Your task to perform on an android device: check out phone information Image 0: 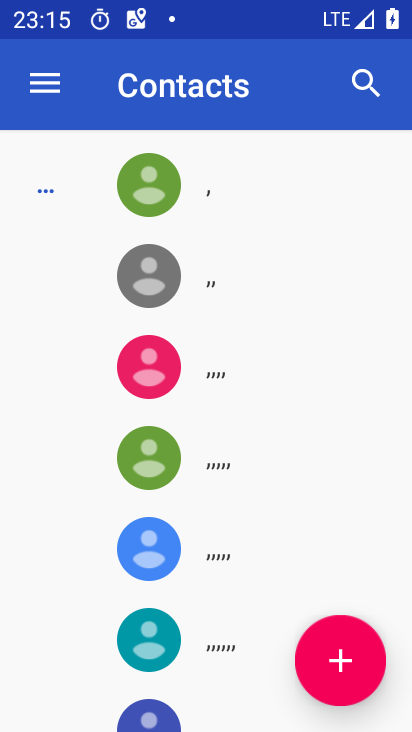
Step 0: press home button
Your task to perform on an android device: check out phone information Image 1: 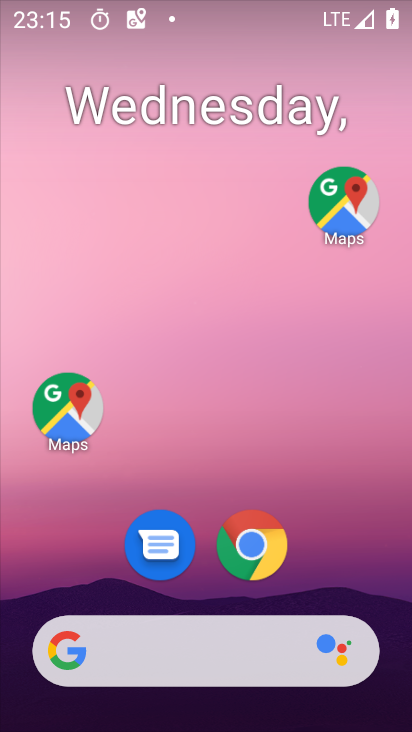
Step 1: drag from (325, 549) to (225, 50)
Your task to perform on an android device: check out phone information Image 2: 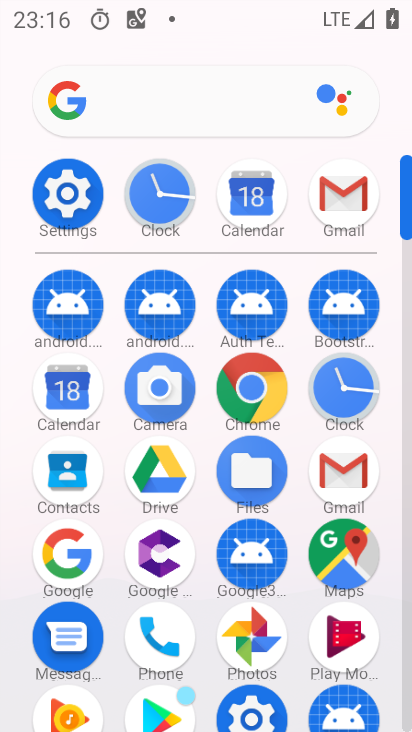
Step 2: click (67, 189)
Your task to perform on an android device: check out phone information Image 3: 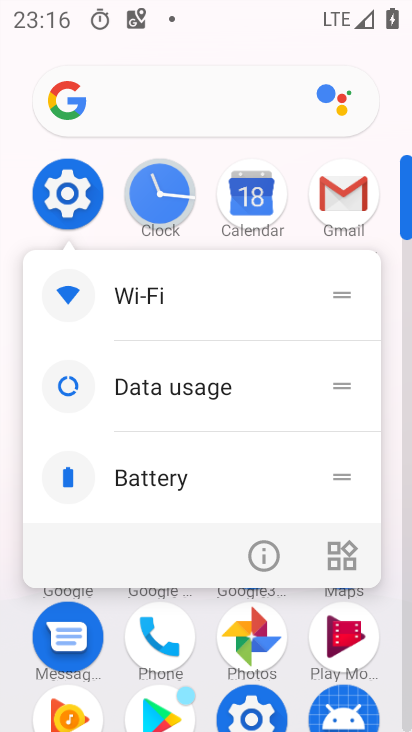
Step 3: click (72, 179)
Your task to perform on an android device: check out phone information Image 4: 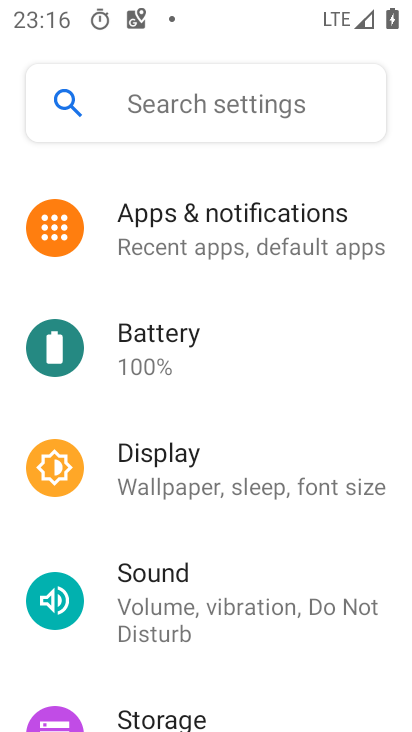
Step 4: drag from (158, 612) to (157, 311)
Your task to perform on an android device: check out phone information Image 5: 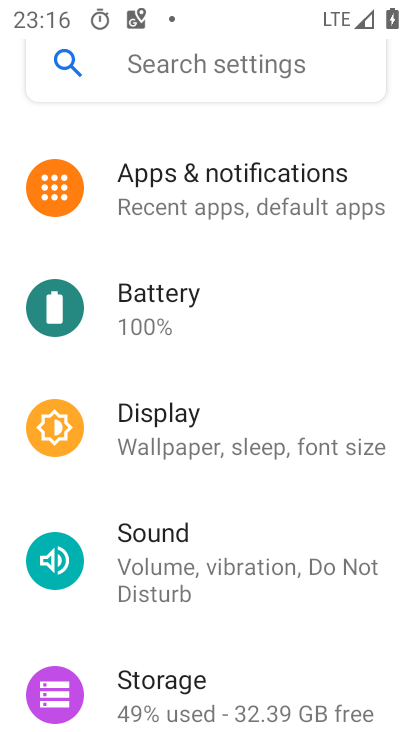
Step 5: drag from (176, 558) to (211, 341)
Your task to perform on an android device: check out phone information Image 6: 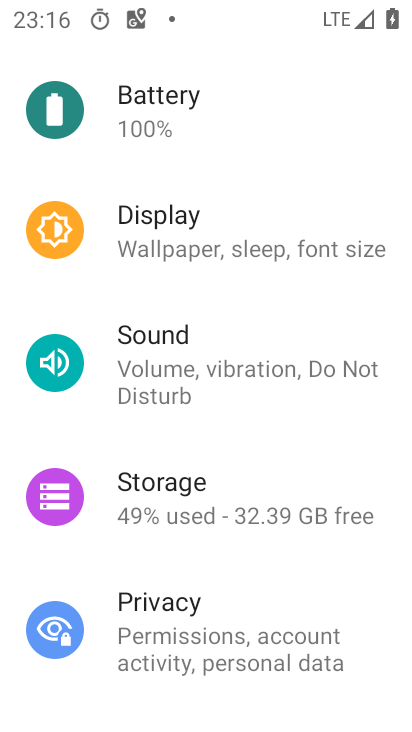
Step 6: drag from (217, 645) to (213, 379)
Your task to perform on an android device: check out phone information Image 7: 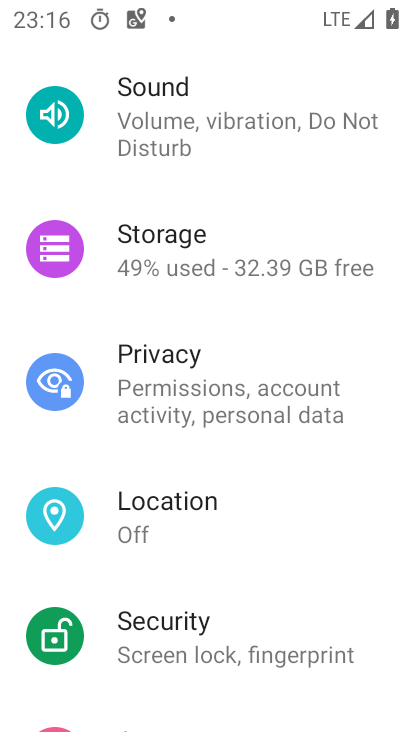
Step 7: drag from (215, 476) to (235, 274)
Your task to perform on an android device: check out phone information Image 8: 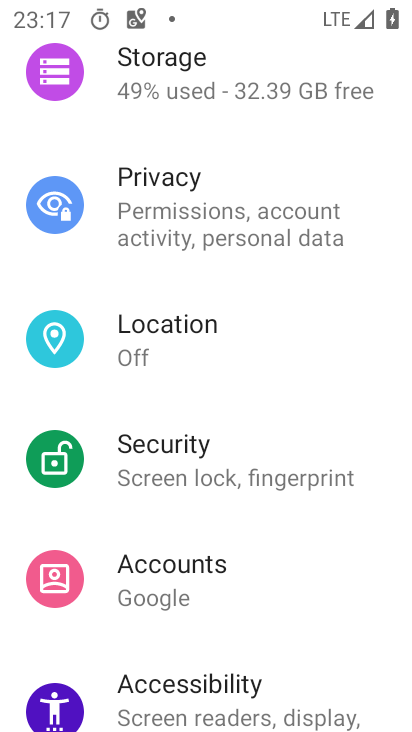
Step 8: drag from (235, 650) to (251, 361)
Your task to perform on an android device: check out phone information Image 9: 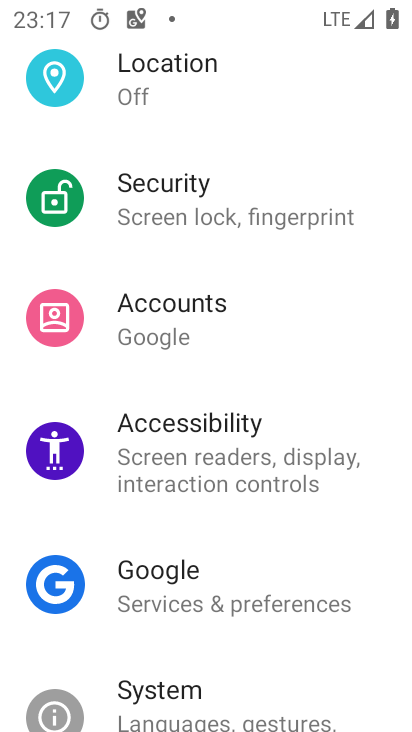
Step 9: drag from (194, 654) to (194, 259)
Your task to perform on an android device: check out phone information Image 10: 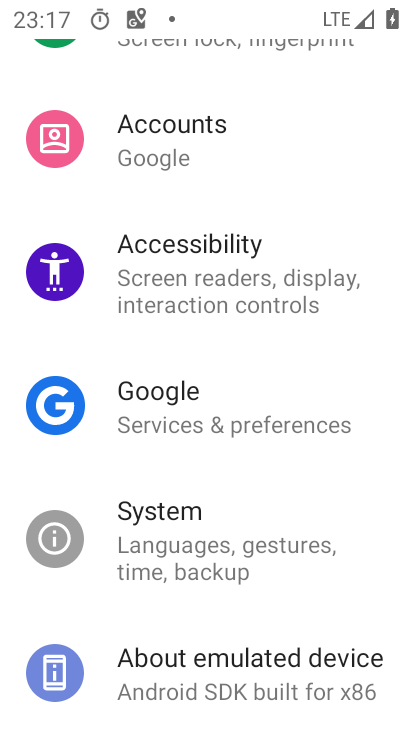
Step 10: click (152, 678)
Your task to perform on an android device: check out phone information Image 11: 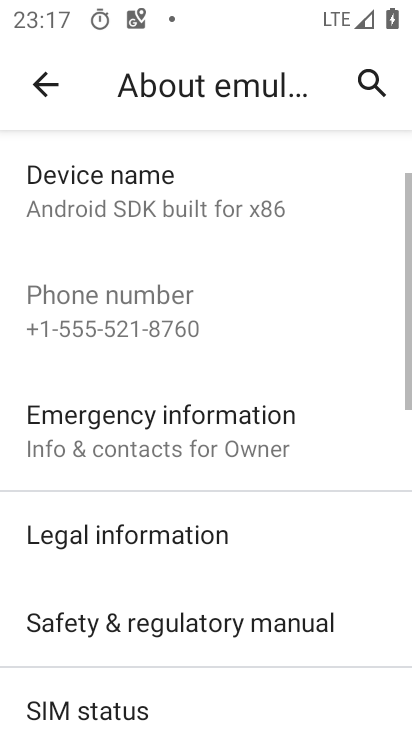
Step 11: task complete